Your task to perform on an android device: Open calendar and show me the third week of next month Image 0: 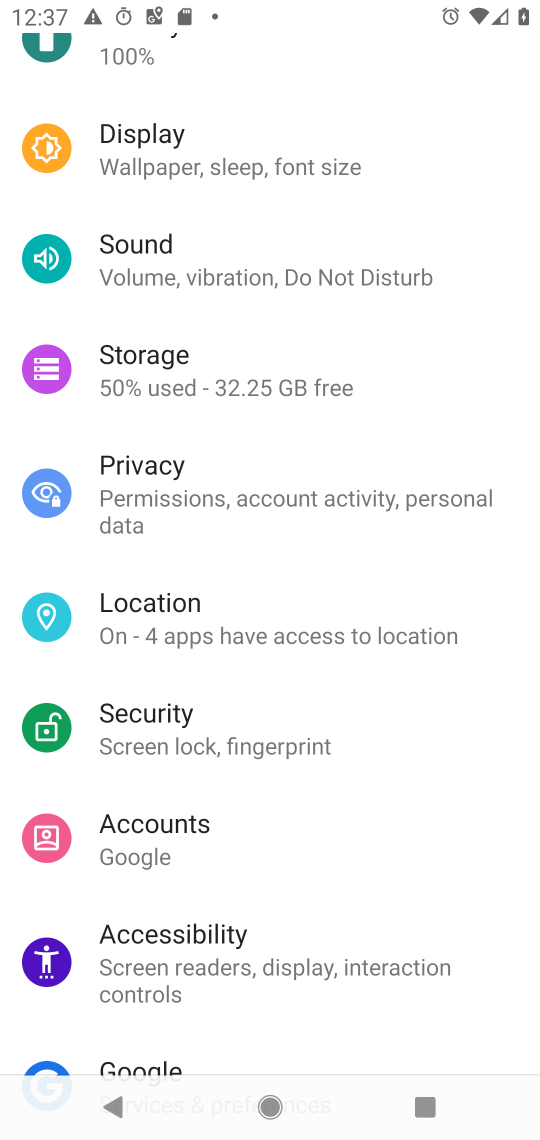
Step 0: press home button
Your task to perform on an android device: Open calendar and show me the third week of next month Image 1: 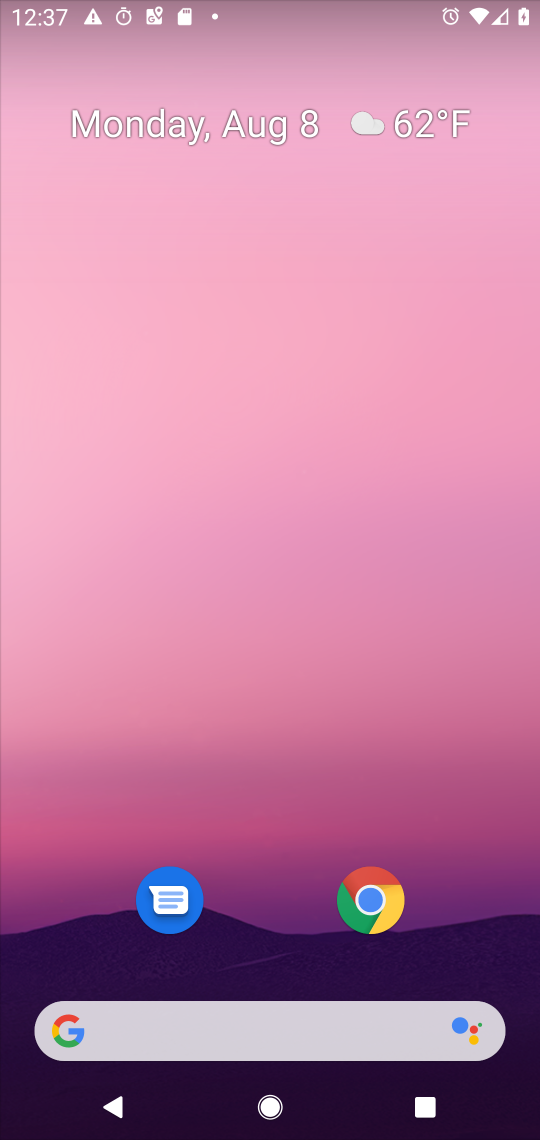
Step 1: drag from (271, 978) to (326, 38)
Your task to perform on an android device: Open calendar and show me the third week of next month Image 2: 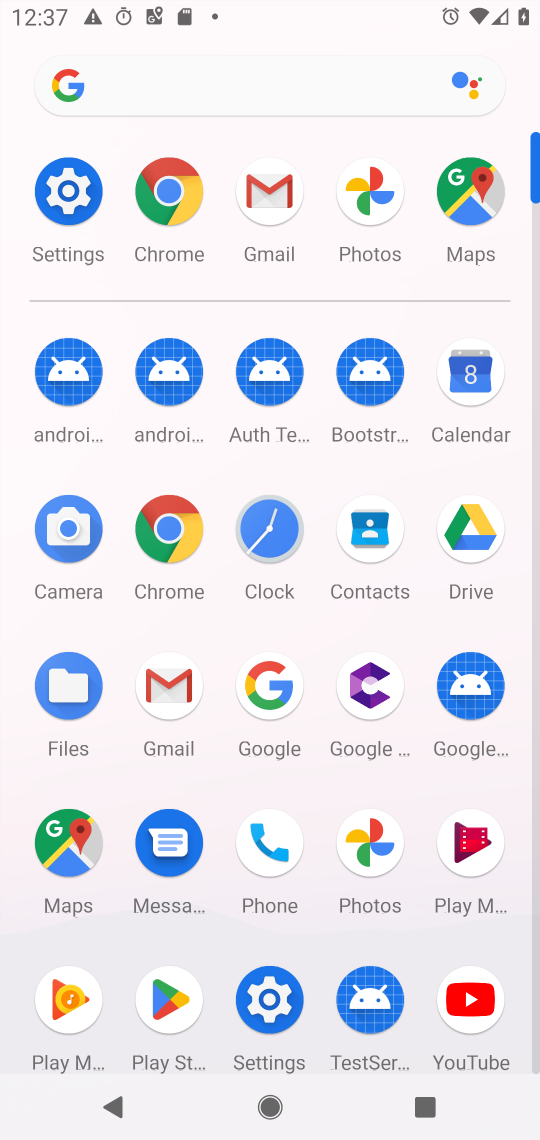
Step 2: click (471, 366)
Your task to perform on an android device: Open calendar and show me the third week of next month Image 3: 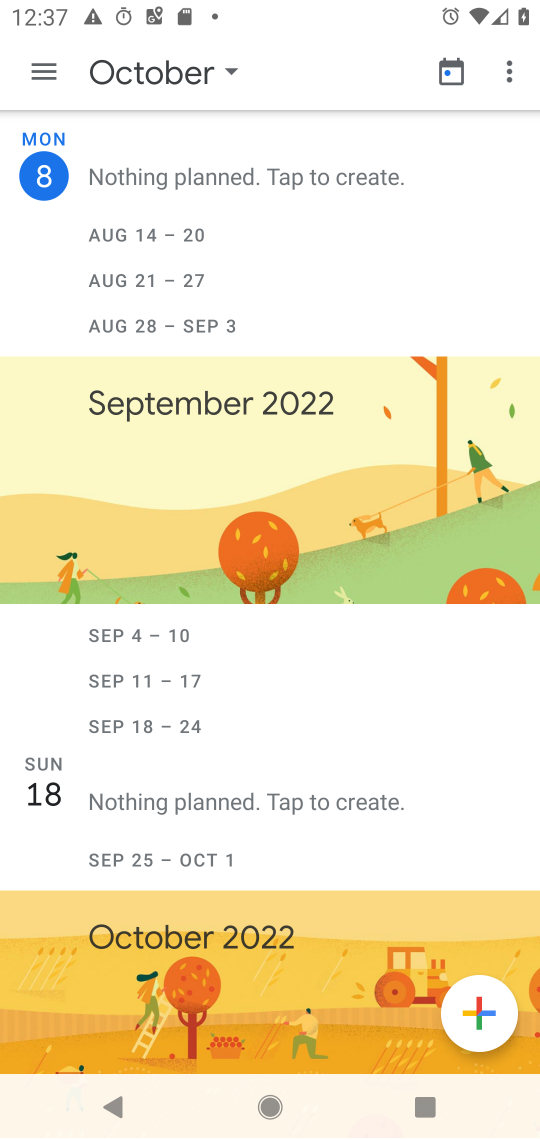
Step 3: click (50, 67)
Your task to perform on an android device: Open calendar and show me the third week of next month Image 4: 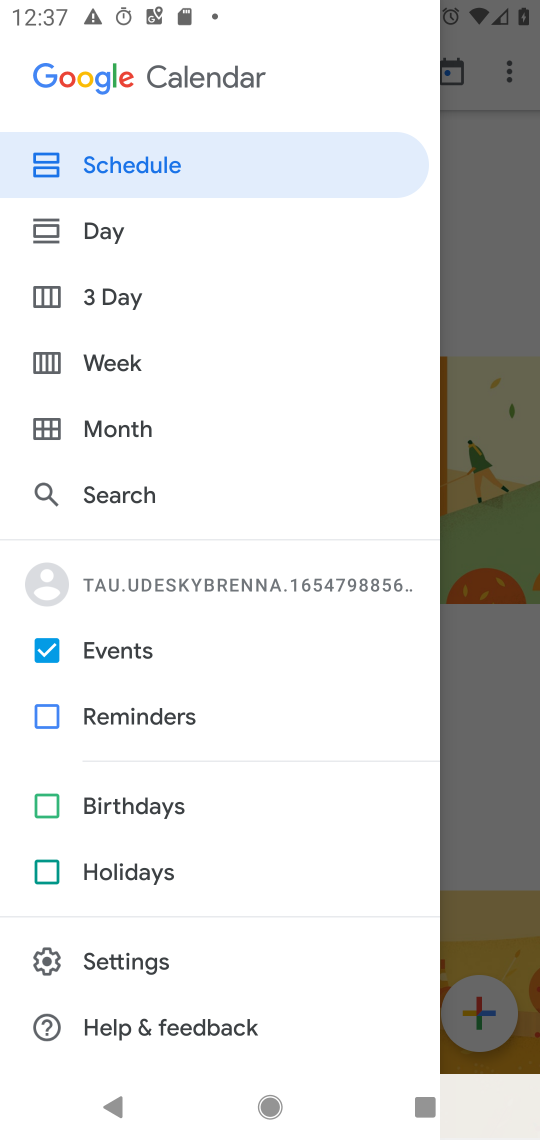
Step 4: click (76, 358)
Your task to perform on an android device: Open calendar and show me the third week of next month Image 5: 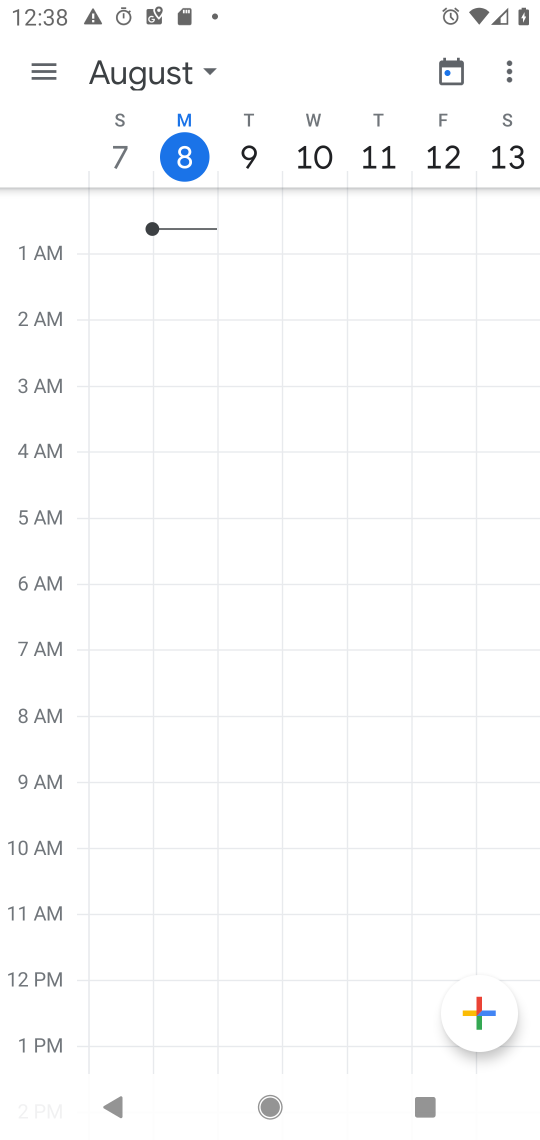
Step 5: click (199, 70)
Your task to perform on an android device: Open calendar and show me the third week of next month Image 6: 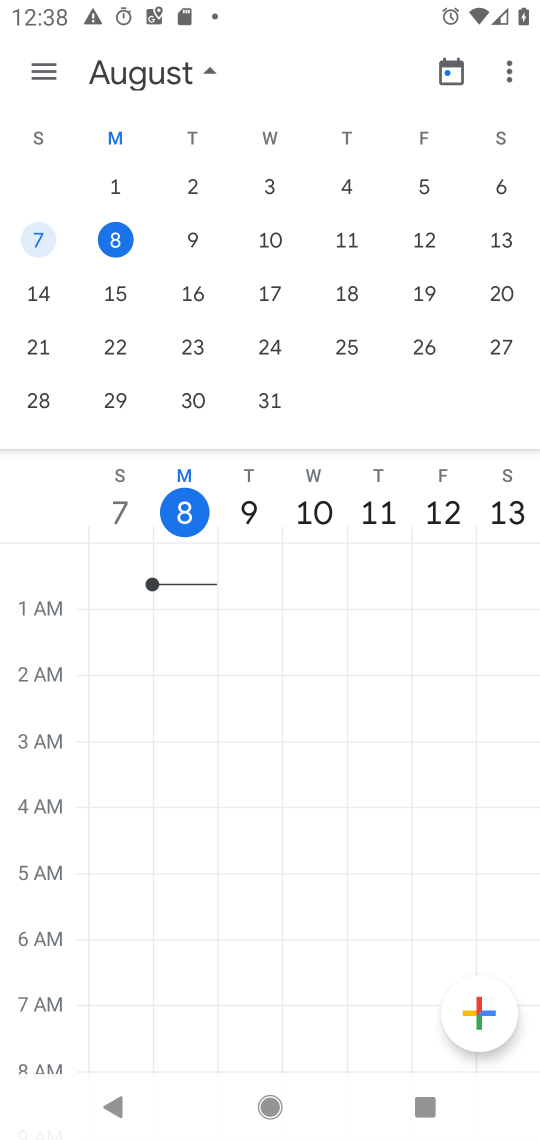
Step 6: drag from (462, 244) to (21, 367)
Your task to perform on an android device: Open calendar and show me the third week of next month Image 7: 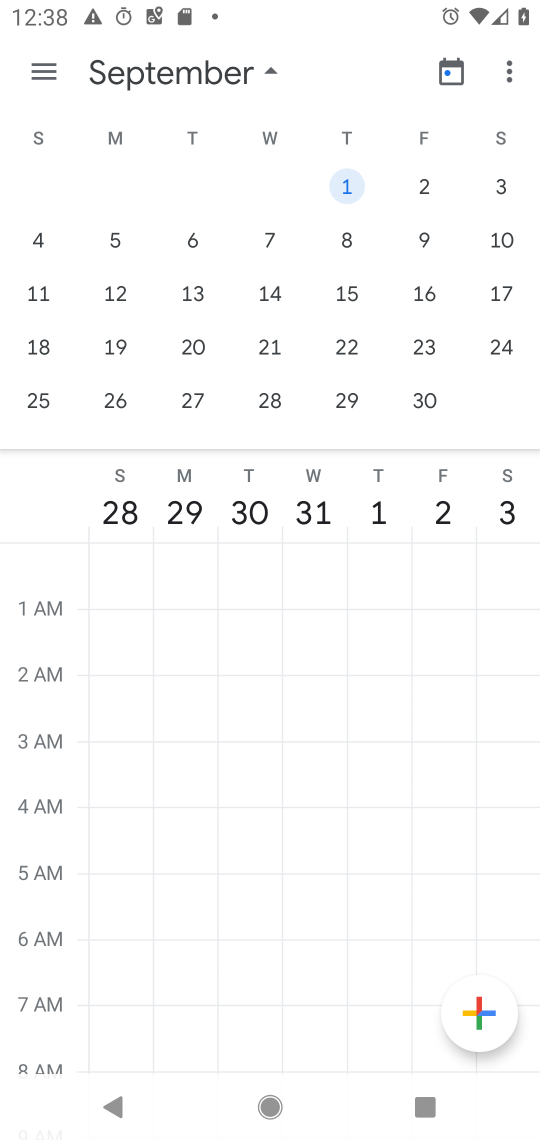
Step 7: click (41, 339)
Your task to perform on an android device: Open calendar and show me the third week of next month Image 8: 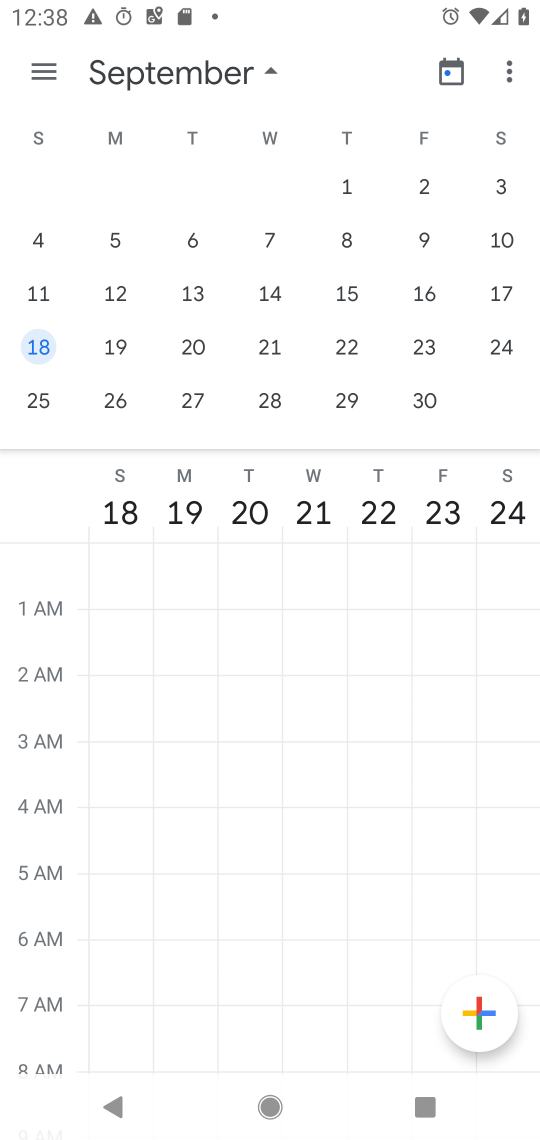
Step 8: click (268, 68)
Your task to perform on an android device: Open calendar and show me the third week of next month Image 9: 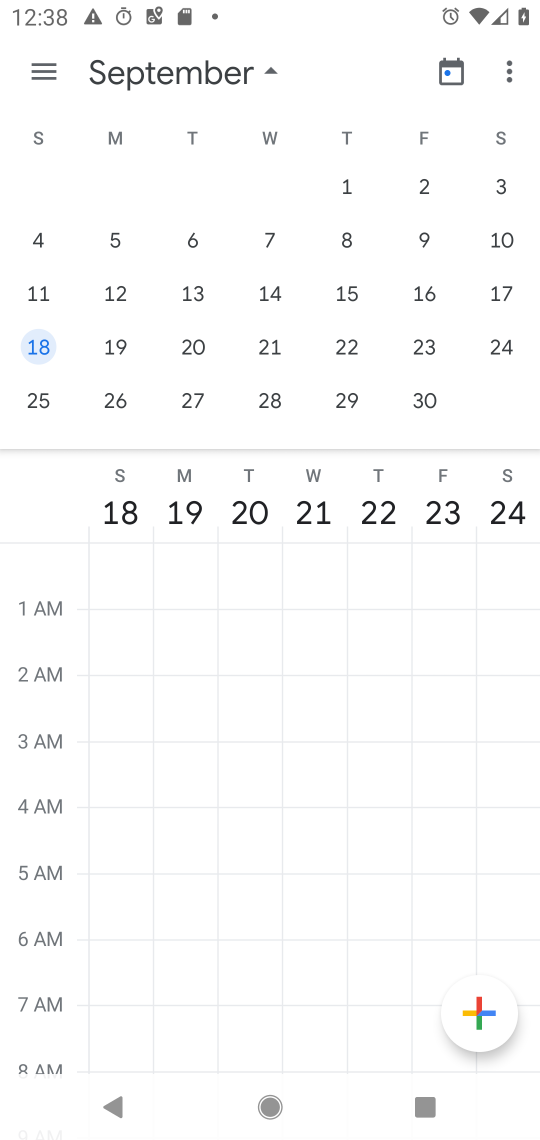
Step 9: click (195, 73)
Your task to perform on an android device: Open calendar and show me the third week of next month Image 10: 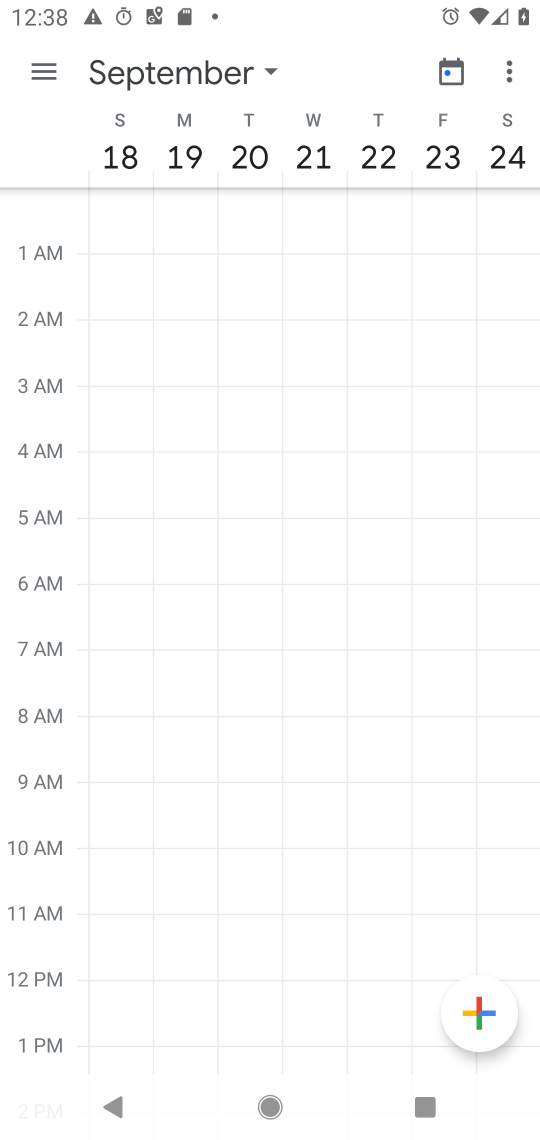
Step 10: click (114, 139)
Your task to perform on an android device: Open calendar and show me the third week of next month Image 11: 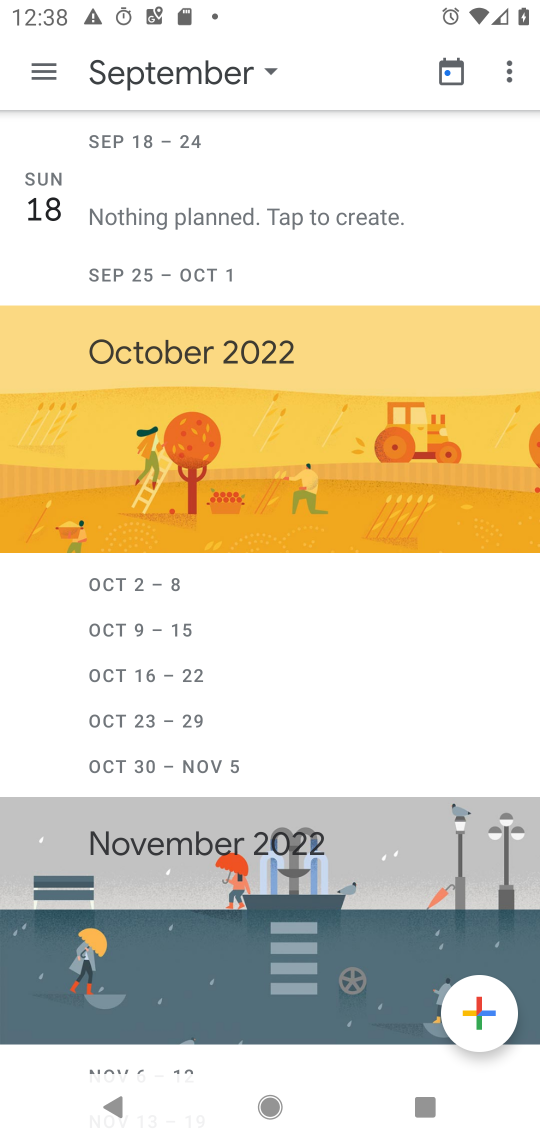
Step 11: task complete